Your task to perform on an android device: Open Youtube and go to the subscriptions tab Image 0: 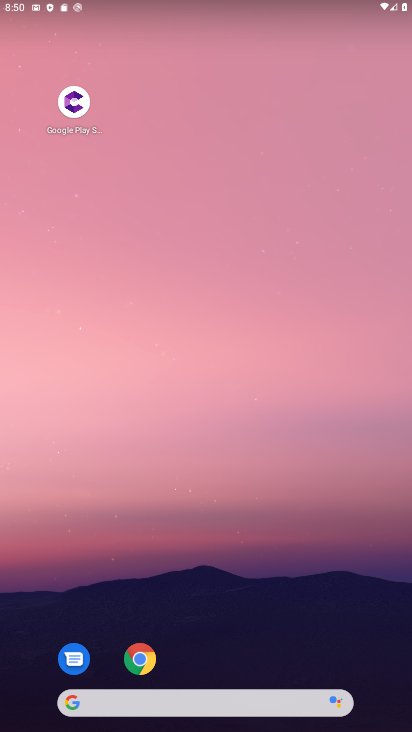
Step 0: drag from (211, 661) to (96, 86)
Your task to perform on an android device: Open Youtube and go to the subscriptions tab Image 1: 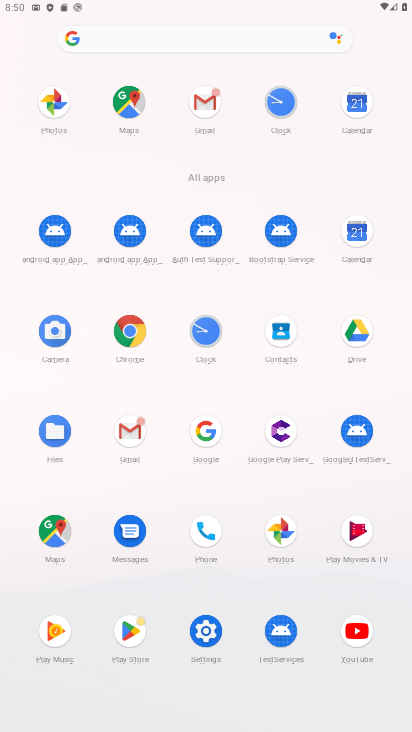
Step 1: click (361, 639)
Your task to perform on an android device: Open Youtube and go to the subscriptions tab Image 2: 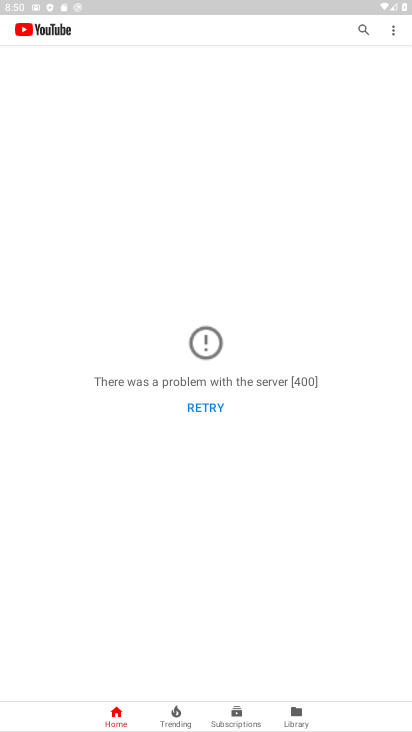
Step 2: click (225, 711)
Your task to perform on an android device: Open Youtube and go to the subscriptions tab Image 3: 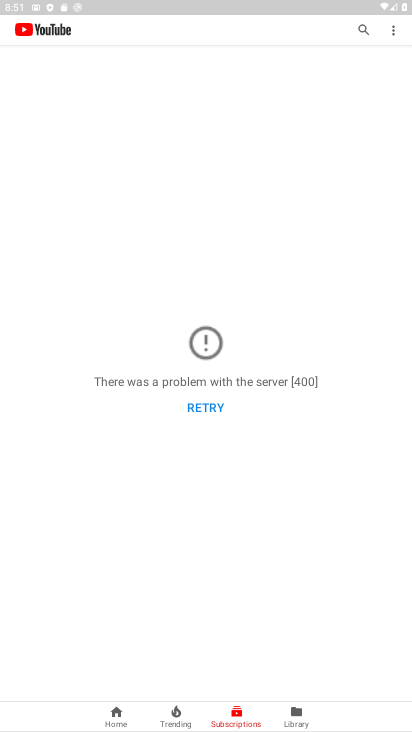
Step 3: task complete